Your task to perform on an android device: Open Youtube and go to "Your channel" Image 0: 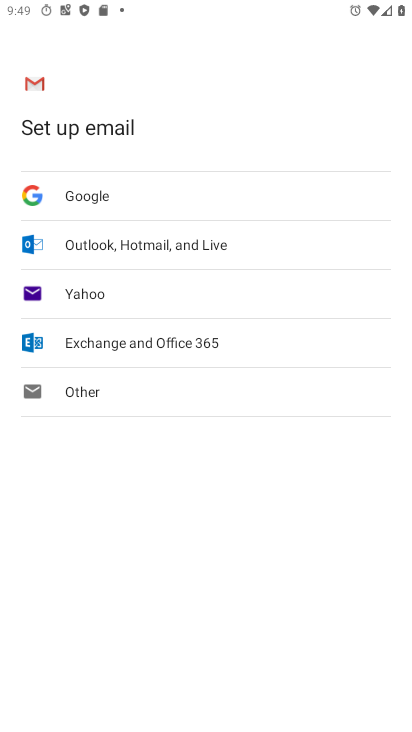
Step 0: press home button
Your task to perform on an android device: Open Youtube and go to "Your channel" Image 1: 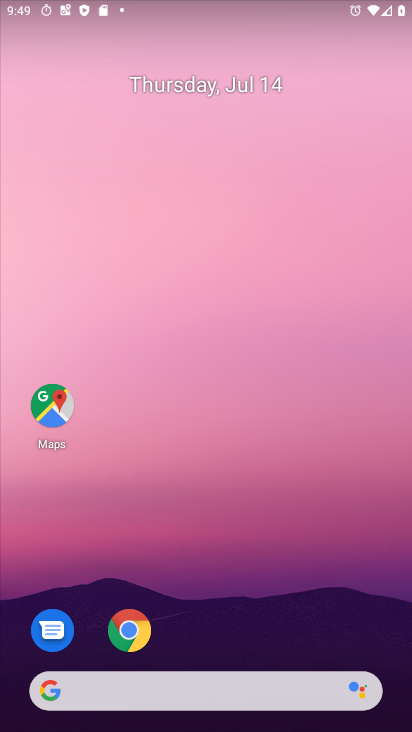
Step 1: drag from (223, 725) to (234, 138)
Your task to perform on an android device: Open Youtube and go to "Your channel" Image 2: 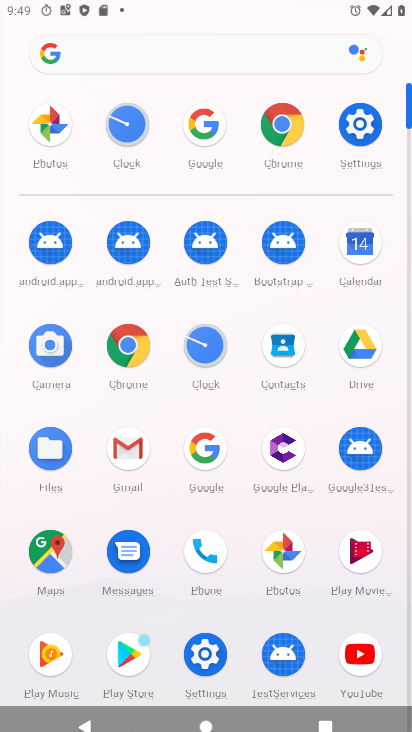
Step 2: click (352, 655)
Your task to perform on an android device: Open Youtube and go to "Your channel" Image 3: 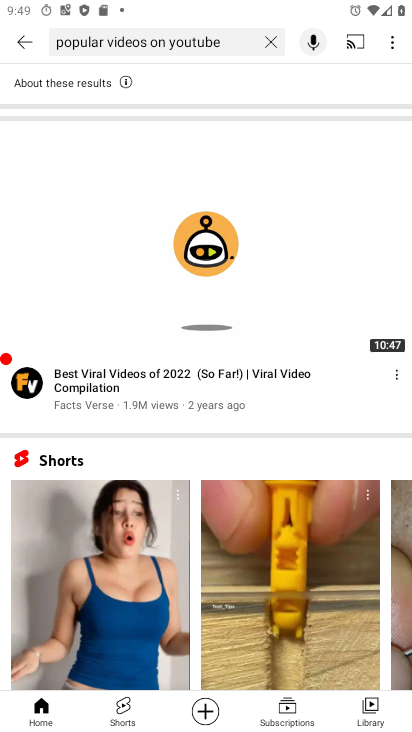
Step 3: click (29, 44)
Your task to perform on an android device: Open Youtube and go to "Your channel" Image 4: 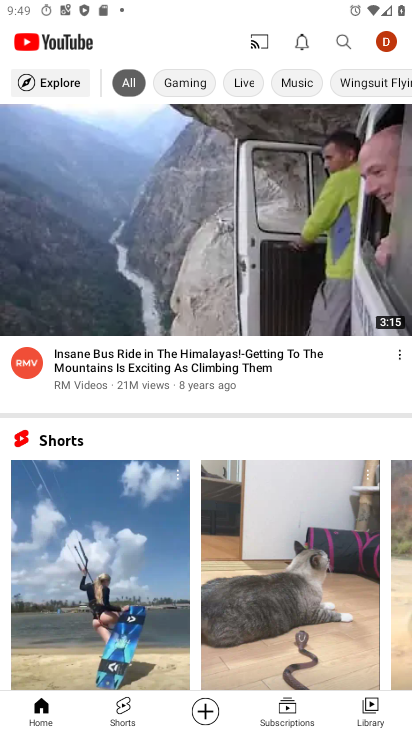
Step 4: click (386, 42)
Your task to perform on an android device: Open Youtube and go to "Your channel" Image 5: 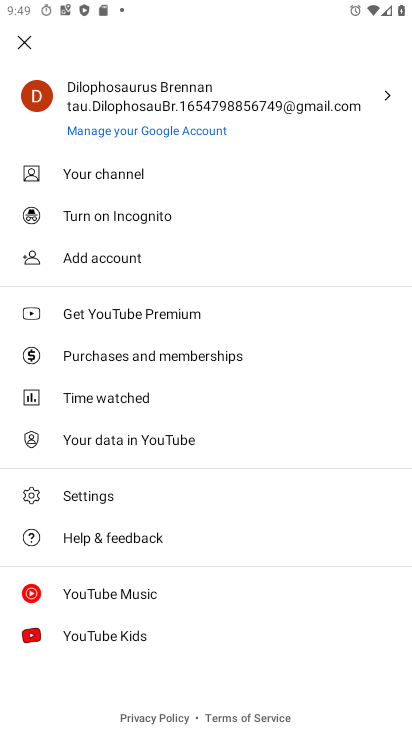
Step 5: click (93, 173)
Your task to perform on an android device: Open Youtube and go to "Your channel" Image 6: 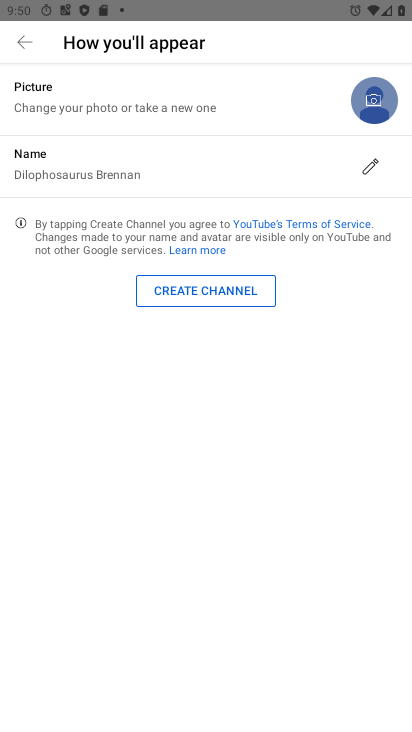
Step 6: task complete